Your task to perform on an android device: Go to CNN.com Image 0: 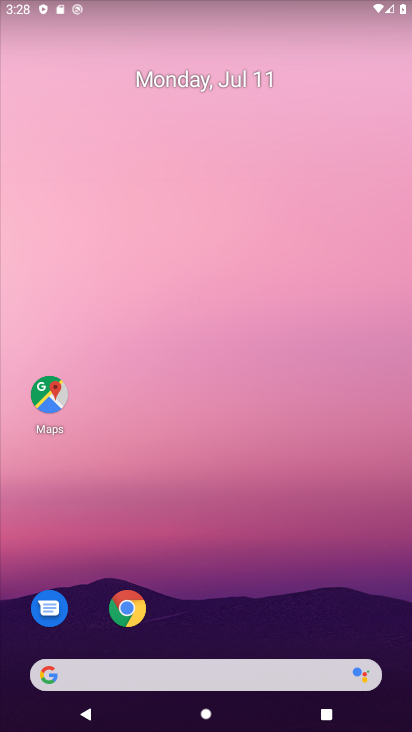
Step 0: click (125, 617)
Your task to perform on an android device: Go to CNN.com Image 1: 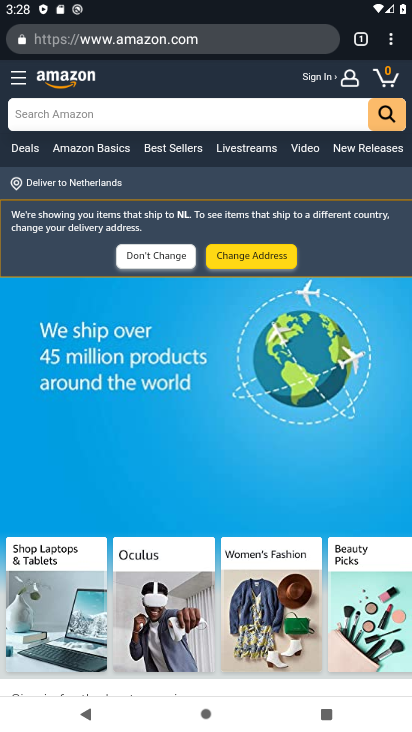
Step 1: click (174, 36)
Your task to perform on an android device: Go to CNN.com Image 2: 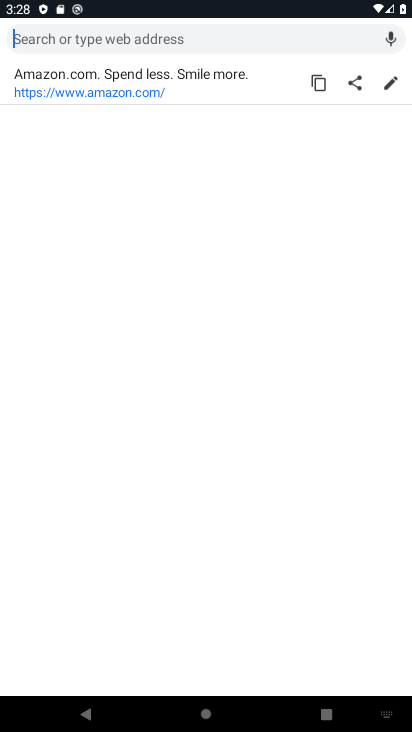
Step 2: type "cnn"
Your task to perform on an android device: Go to CNN.com Image 3: 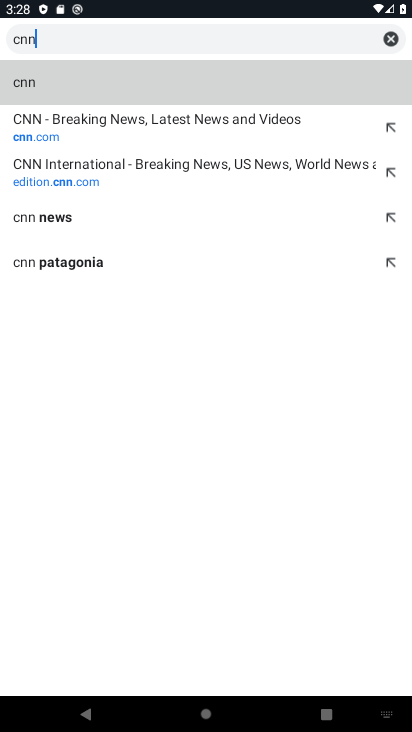
Step 3: click (79, 137)
Your task to perform on an android device: Go to CNN.com Image 4: 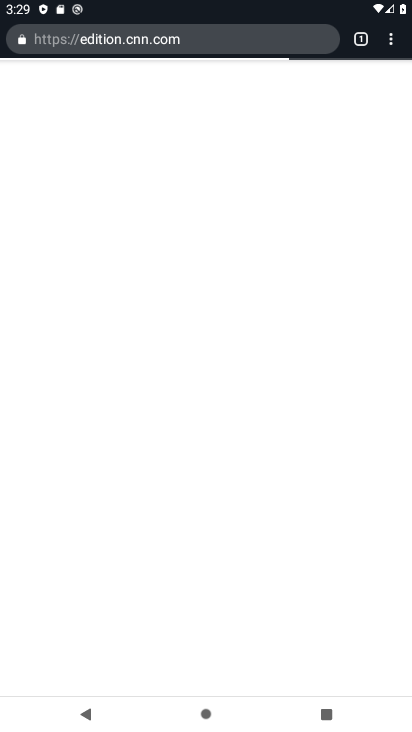
Step 4: task complete